Your task to perform on an android device: toggle pop-ups in chrome Image 0: 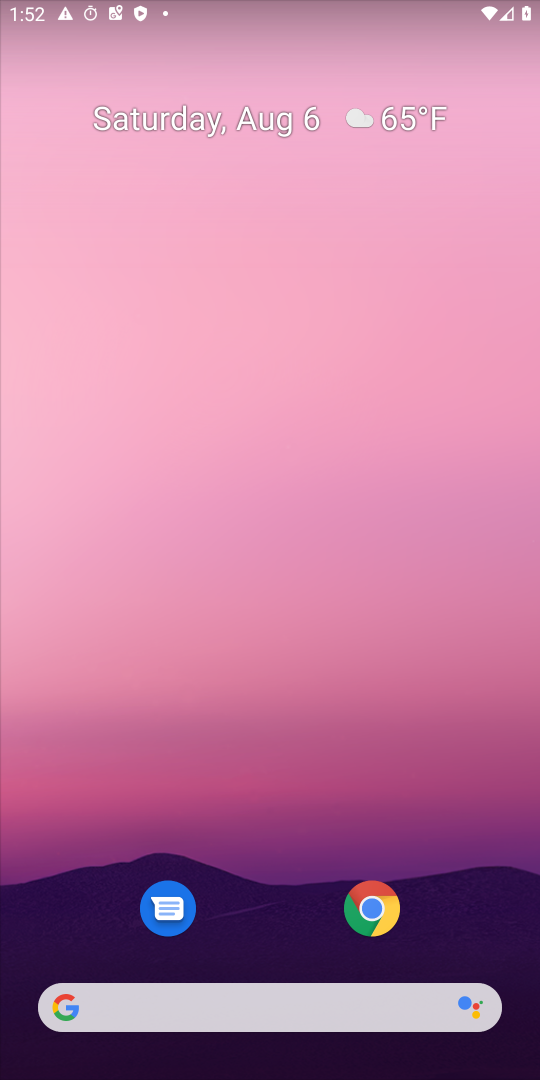
Step 0: click (359, 895)
Your task to perform on an android device: toggle pop-ups in chrome Image 1: 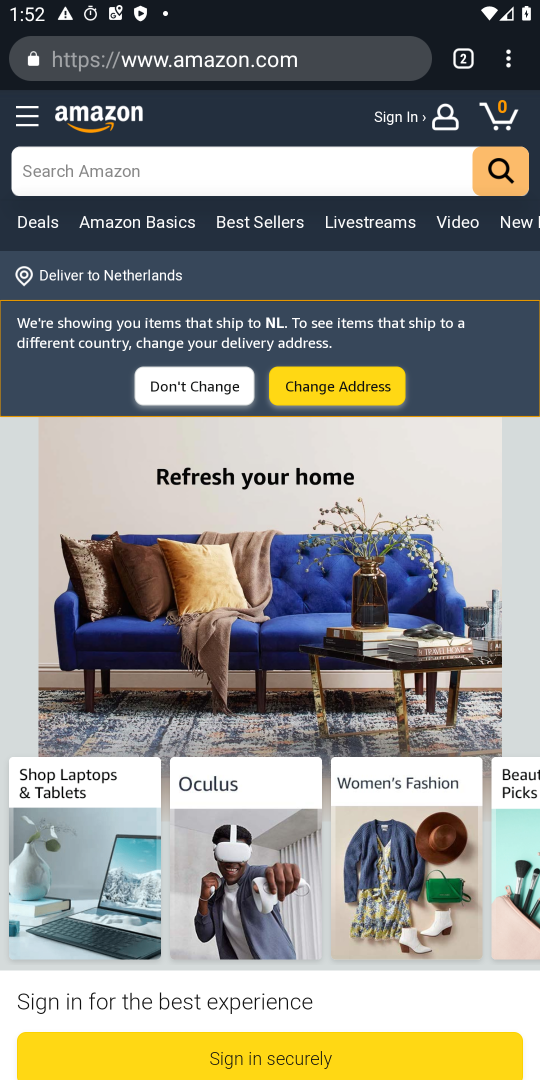
Step 1: click (514, 56)
Your task to perform on an android device: toggle pop-ups in chrome Image 2: 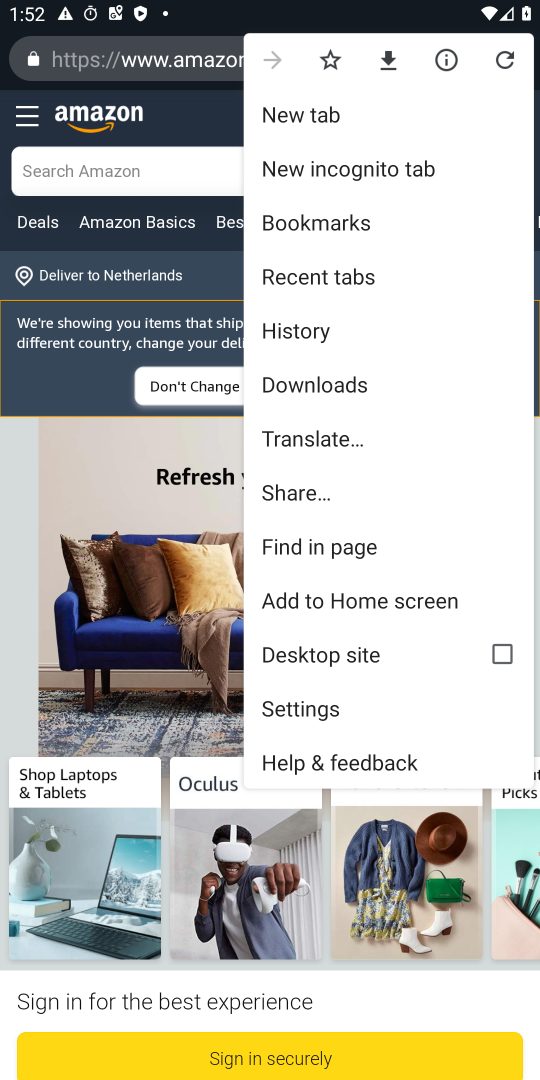
Step 2: click (296, 706)
Your task to perform on an android device: toggle pop-ups in chrome Image 3: 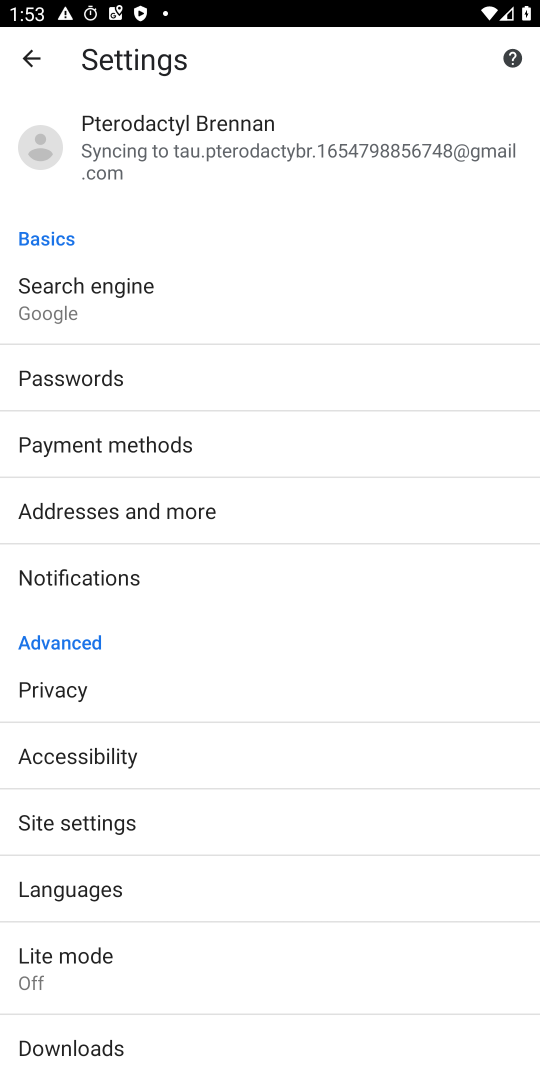
Step 3: click (99, 823)
Your task to perform on an android device: toggle pop-ups in chrome Image 4: 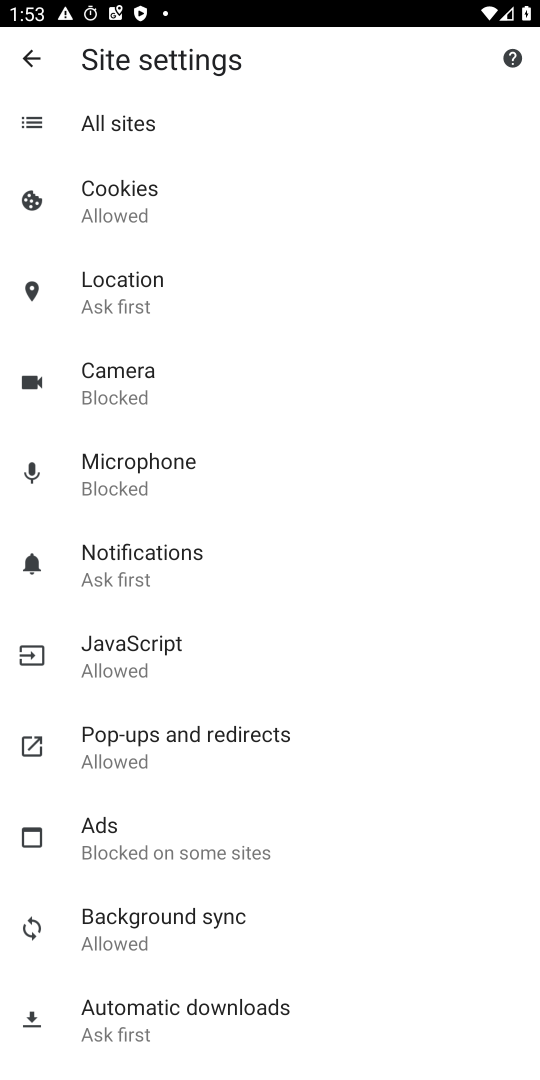
Step 4: click (185, 739)
Your task to perform on an android device: toggle pop-ups in chrome Image 5: 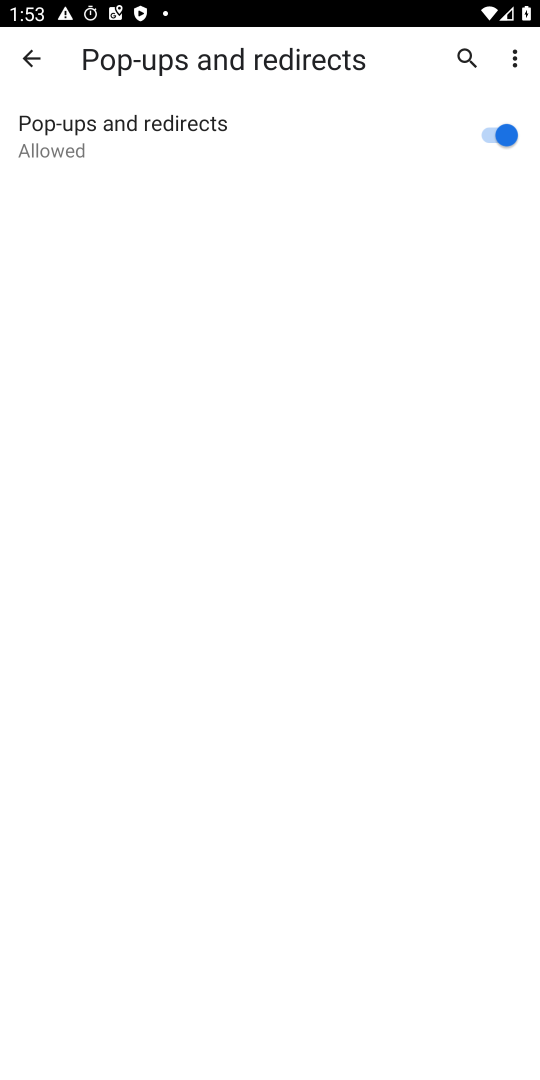
Step 5: click (494, 139)
Your task to perform on an android device: toggle pop-ups in chrome Image 6: 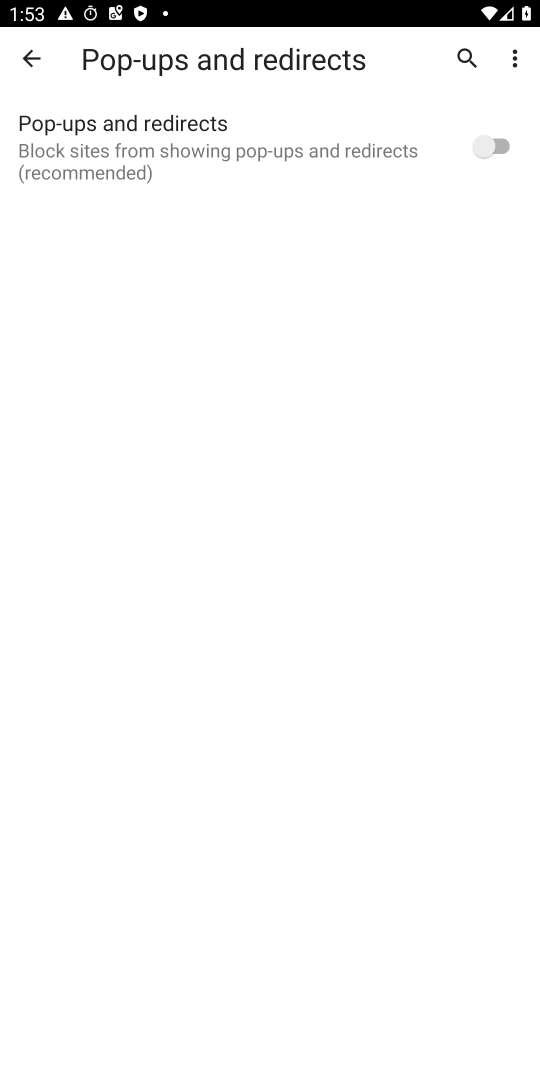
Step 6: task complete